Your task to perform on an android device: turn off translation in the chrome app Image 0: 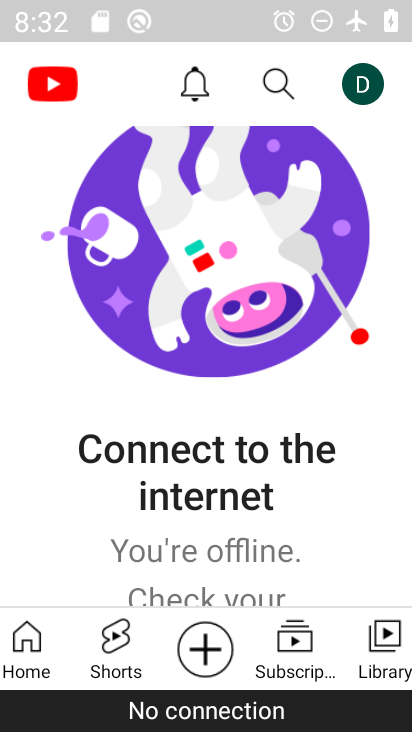
Step 0: press home button
Your task to perform on an android device: turn off translation in the chrome app Image 1: 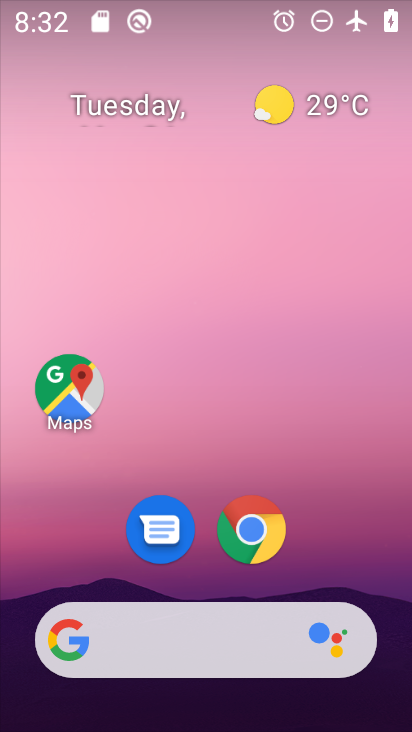
Step 1: drag from (391, 622) to (254, 30)
Your task to perform on an android device: turn off translation in the chrome app Image 2: 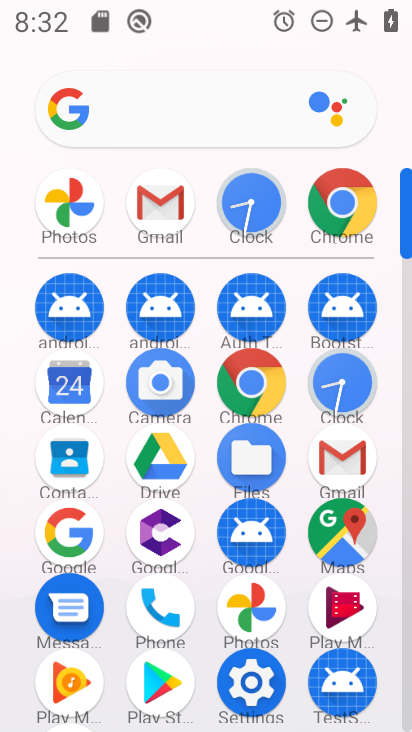
Step 2: click (362, 206)
Your task to perform on an android device: turn off translation in the chrome app Image 3: 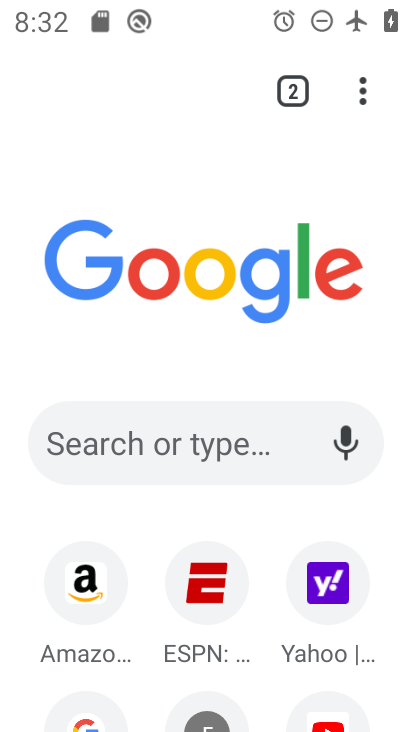
Step 3: click (364, 89)
Your task to perform on an android device: turn off translation in the chrome app Image 4: 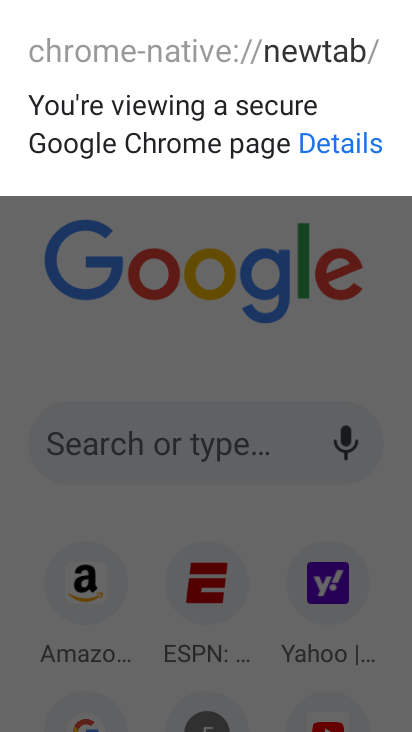
Step 4: press back button
Your task to perform on an android device: turn off translation in the chrome app Image 5: 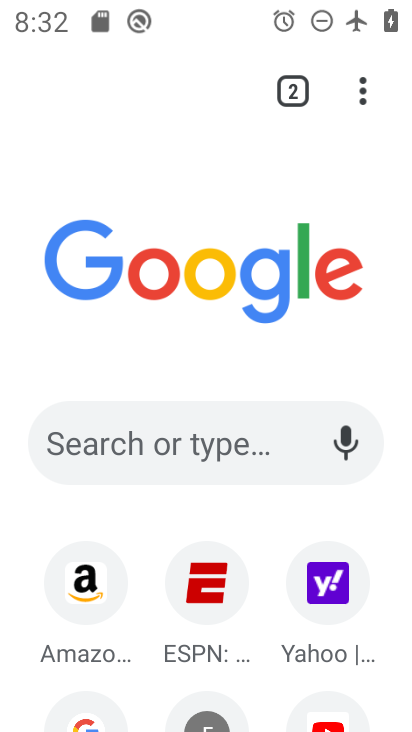
Step 5: click (361, 80)
Your task to perform on an android device: turn off translation in the chrome app Image 6: 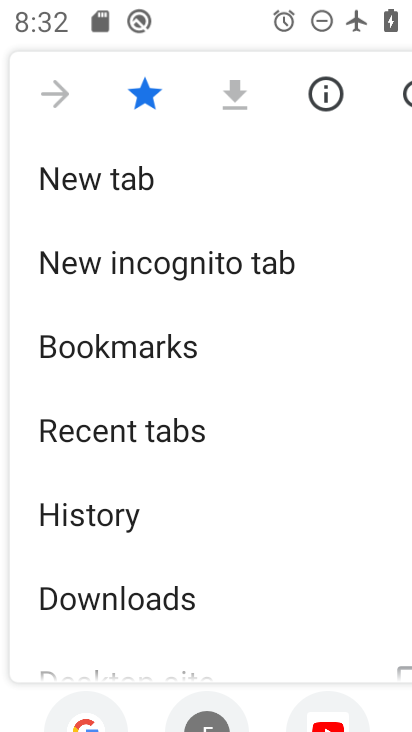
Step 6: drag from (155, 590) to (179, 190)
Your task to perform on an android device: turn off translation in the chrome app Image 7: 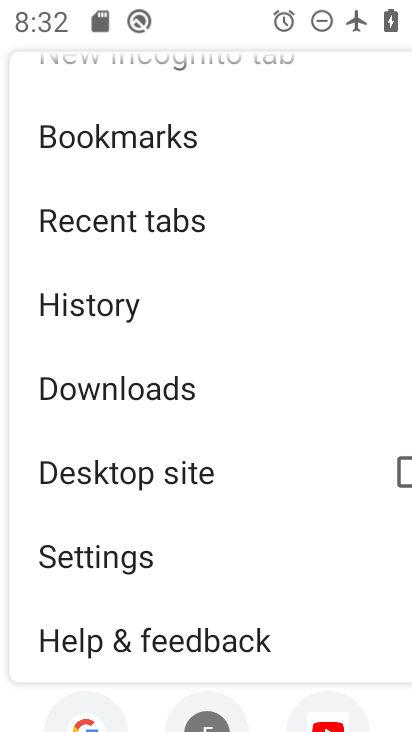
Step 7: click (172, 537)
Your task to perform on an android device: turn off translation in the chrome app Image 8: 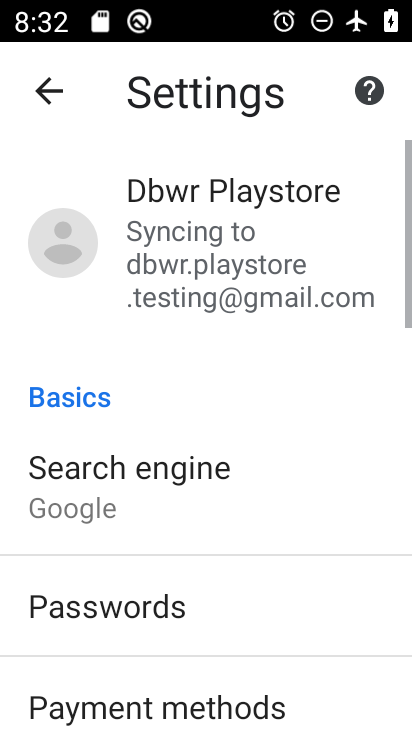
Step 8: drag from (142, 672) to (214, 214)
Your task to perform on an android device: turn off translation in the chrome app Image 9: 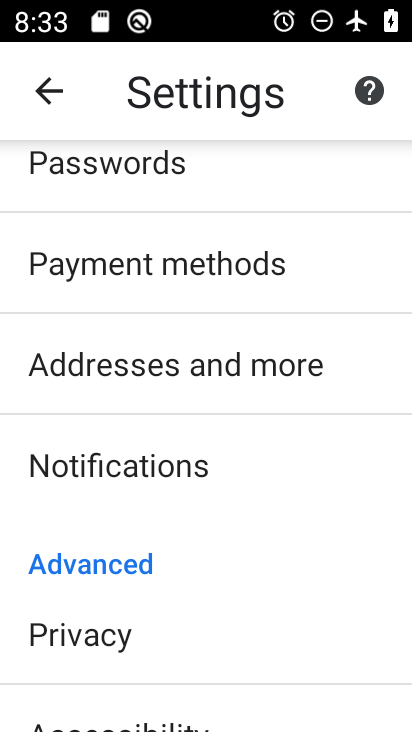
Step 9: drag from (235, 652) to (306, 192)
Your task to perform on an android device: turn off translation in the chrome app Image 10: 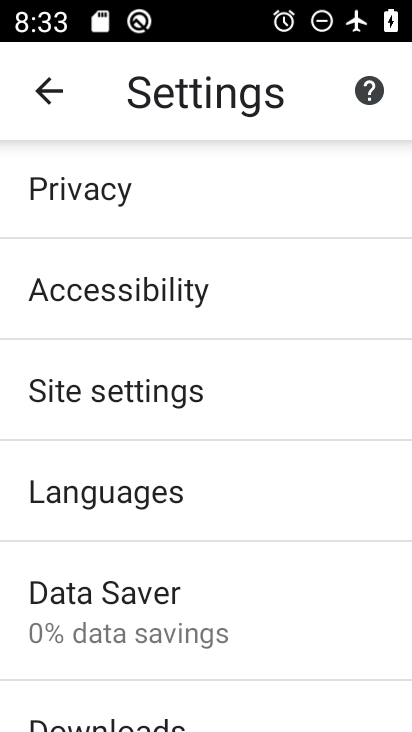
Step 10: click (210, 476)
Your task to perform on an android device: turn off translation in the chrome app Image 11: 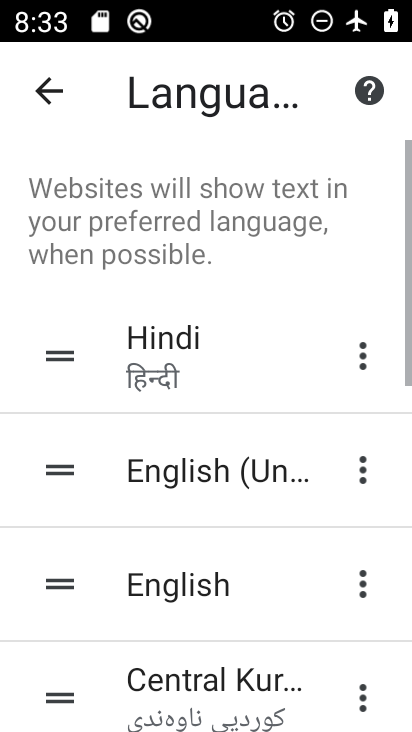
Step 11: drag from (226, 675) to (220, 152)
Your task to perform on an android device: turn off translation in the chrome app Image 12: 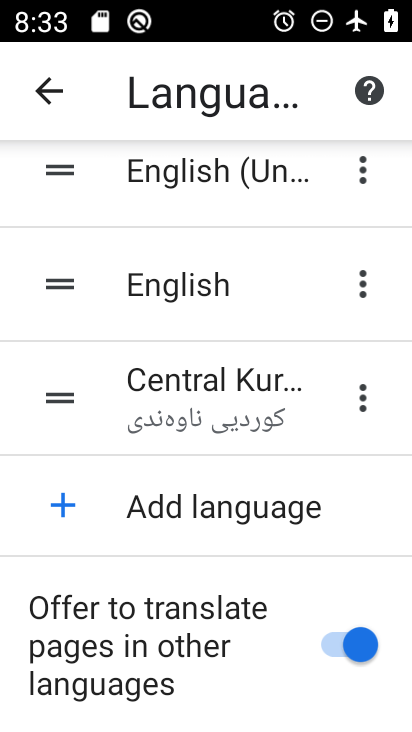
Step 12: click (280, 618)
Your task to perform on an android device: turn off translation in the chrome app Image 13: 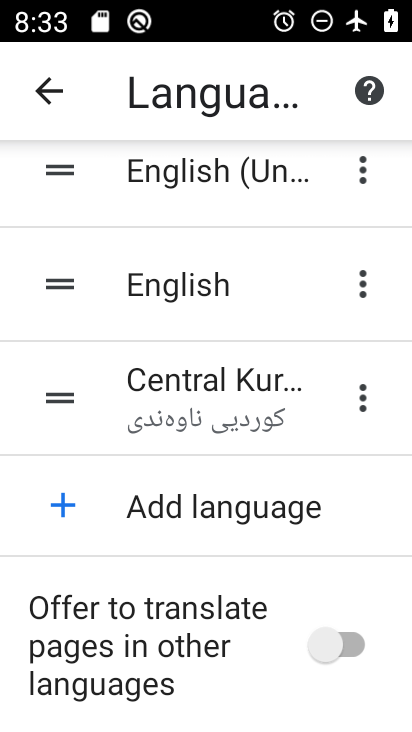
Step 13: task complete